Your task to perform on an android device: see sites visited before in the chrome app Image 0: 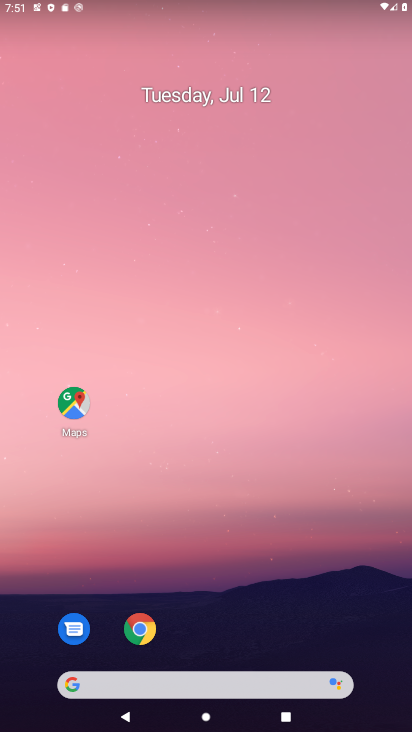
Step 0: drag from (318, 602) to (302, 370)
Your task to perform on an android device: see sites visited before in the chrome app Image 1: 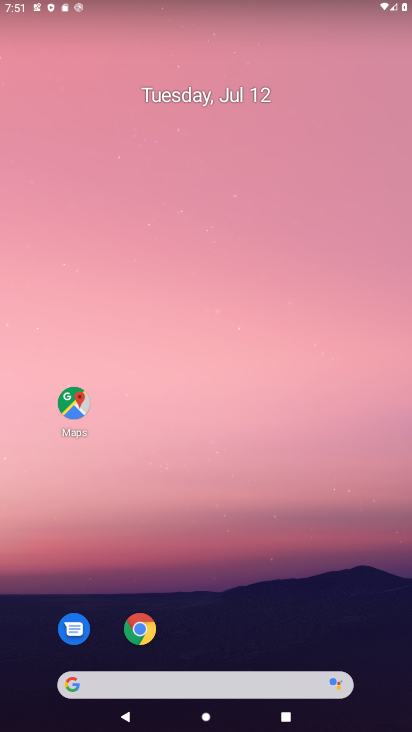
Step 1: drag from (295, 641) to (236, 334)
Your task to perform on an android device: see sites visited before in the chrome app Image 2: 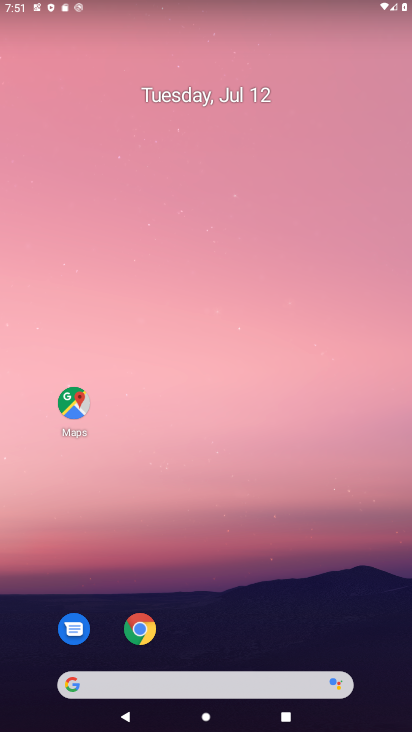
Step 2: drag from (277, 653) to (191, 190)
Your task to perform on an android device: see sites visited before in the chrome app Image 3: 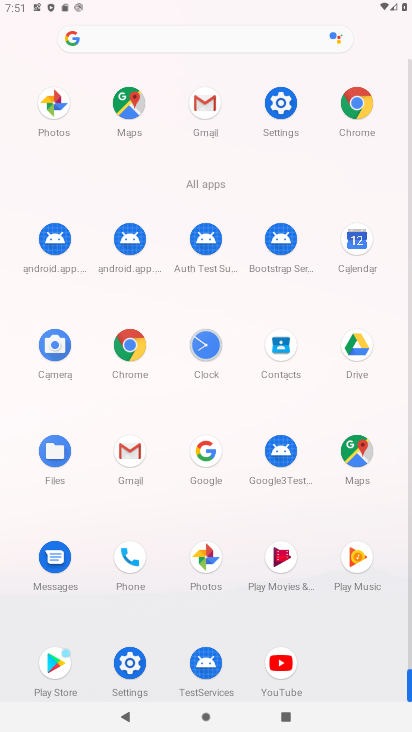
Step 3: click (357, 100)
Your task to perform on an android device: see sites visited before in the chrome app Image 4: 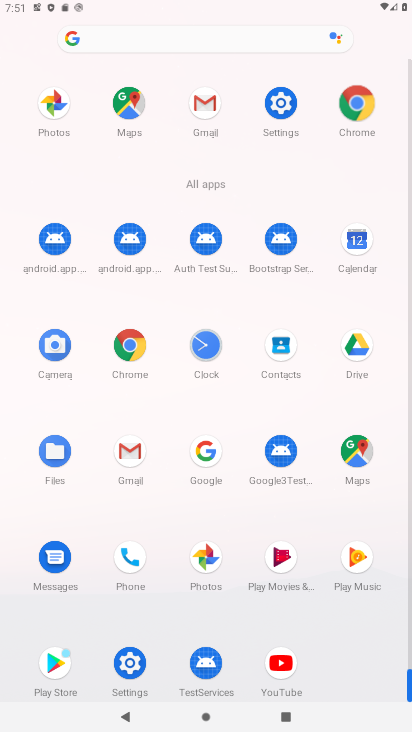
Step 4: click (363, 106)
Your task to perform on an android device: see sites visited before in the chrome app Image 5: 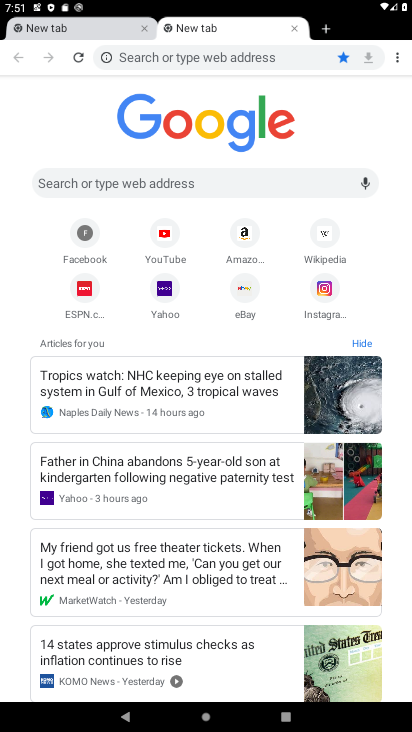
Step 5: click (399, 51)
Your task to perform on an android device: see sites visited before in the chrome app Image 6: 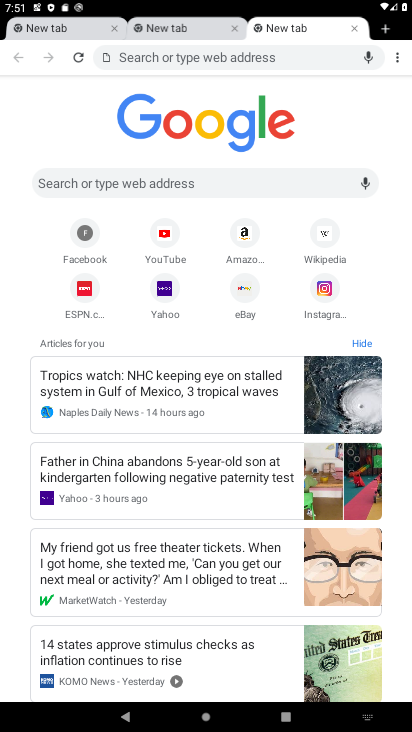
Step 6: drag from (402, 56) to (278, 138)
Your task to perform on an android device: see sites visited before in the chrome app Image 7: 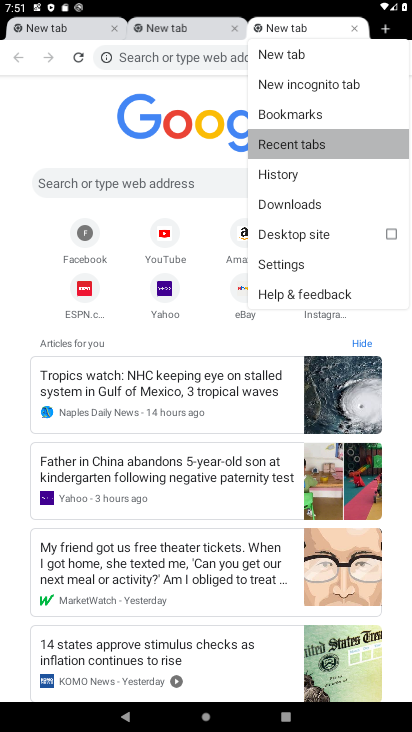
Step 7: click (278, 138)
Your task to perform on an android device: see sites visited before in the chrome app Image 8: 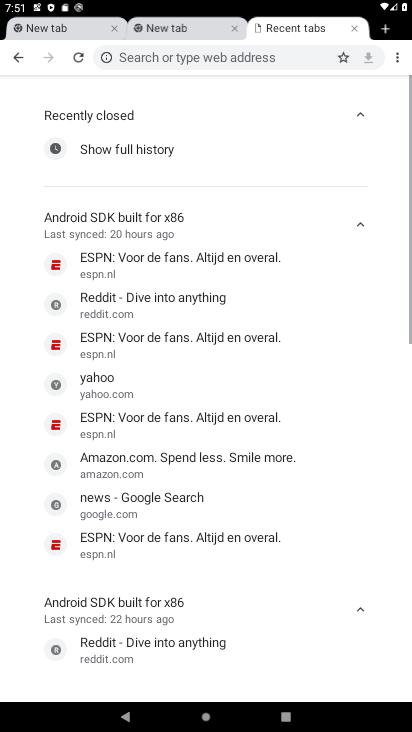
Step 8: click (283, 138)
Your task to perform on an android device: see sites visited before in the chrome app Image 9: 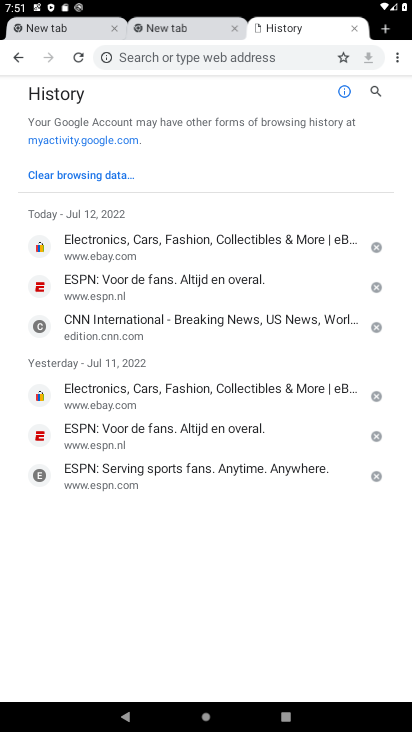
Step 9: task complete